Your task to perform on an android device: turn off priority inbox in the gmail app Image 0: 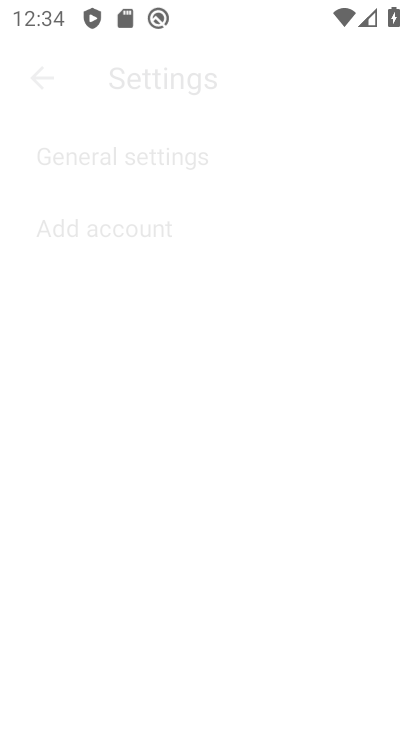
Step 0: drag from (333, 578) to (281, 288)
Your task to perform on an android device: turn off priority inbox in the gmail app Image 1: 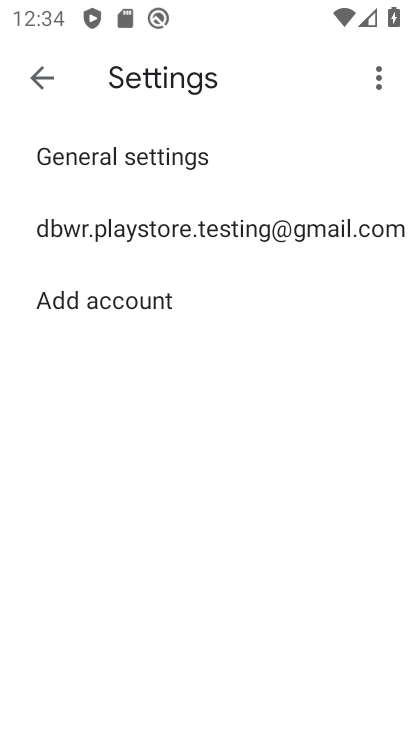
Step 1: click (251, 227)
Your task to perform on an android device: turn off priority inbox in the gmail app Image 2: 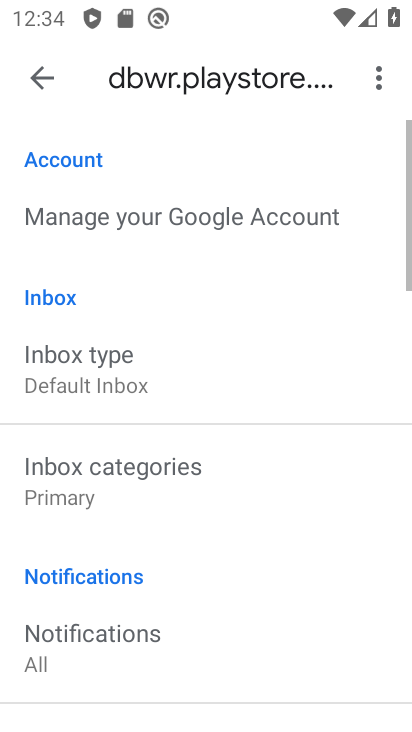
Step 2: click (71, 361)
Your task to perform on an android device: turn off priority inbox in the gmail app Image 3: 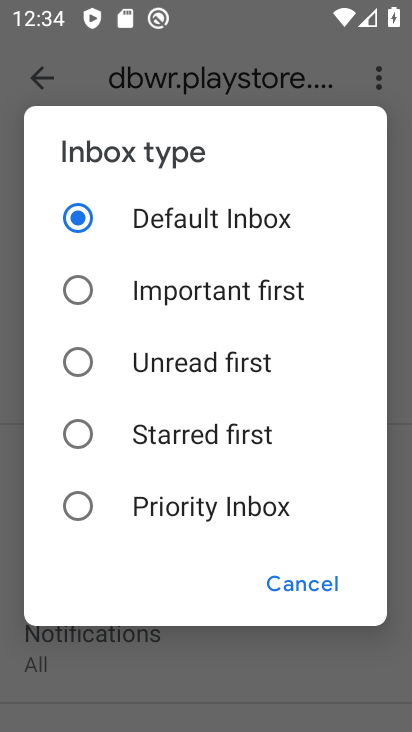
Step 3: task complete